Your task to perform on an android device: change the clock display to analog Image 0: 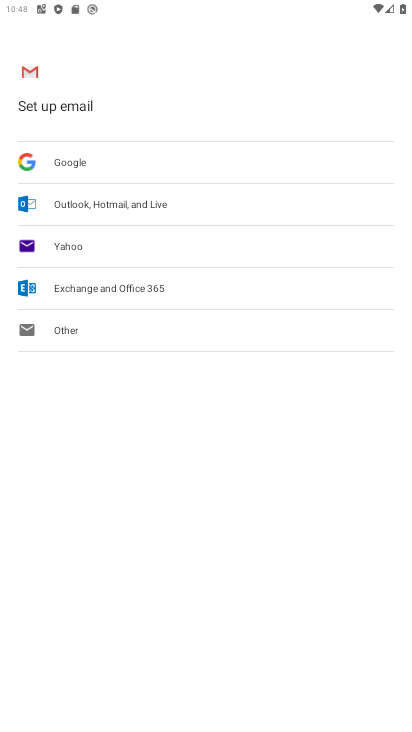
Step 0: press home button
Your task to perform on an android device: change the clock display to analog Image 1: 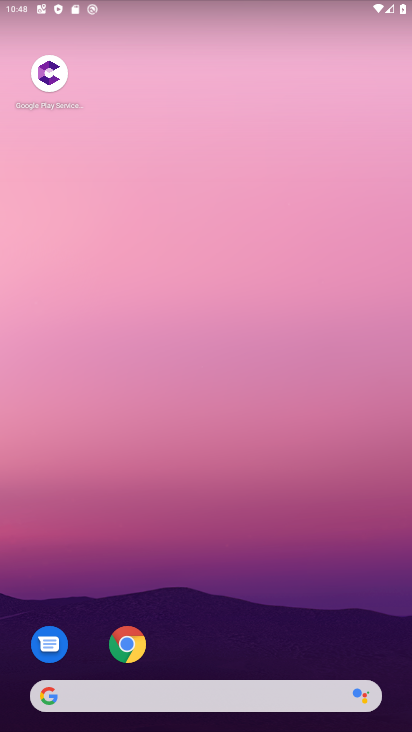
Step 1: drag from (198, 690) to (191, 105)
Your task to perform on an android device: change the clock display to analog Image 2: 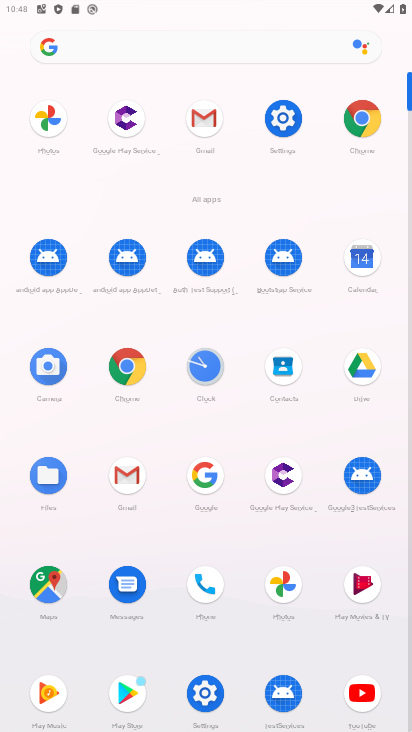
Step 2: click (206, 366)
Your task to perform on an android device: change the clock display to analog Image 3: 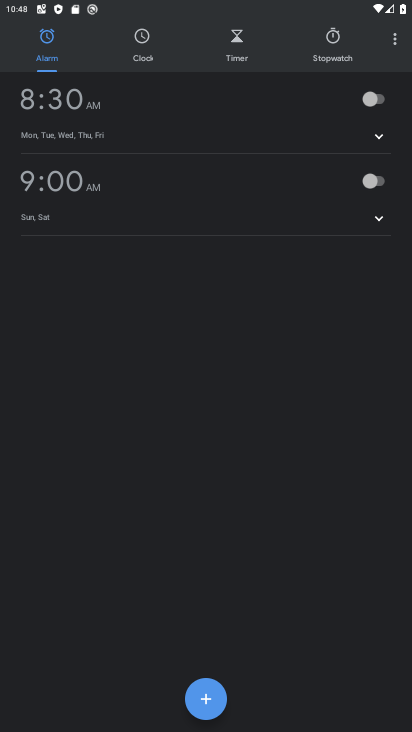
Step 3: click (396, 45)
Your task to perform on an android device: change the clock display to analog Image 4: 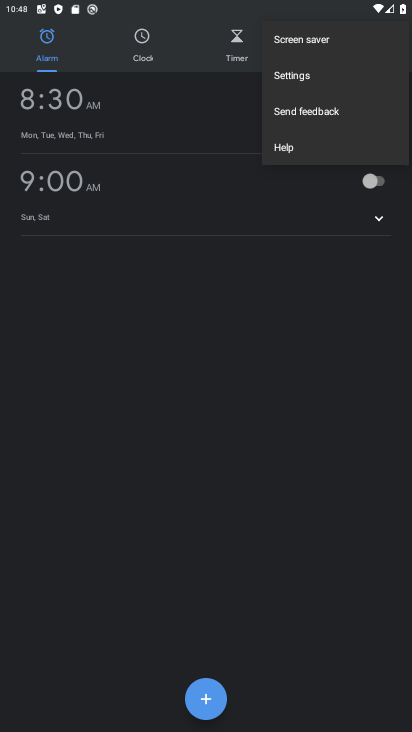
Step 4: click (316, 73)
Your task to perform on an android device: change the clock display to analog Image 5: 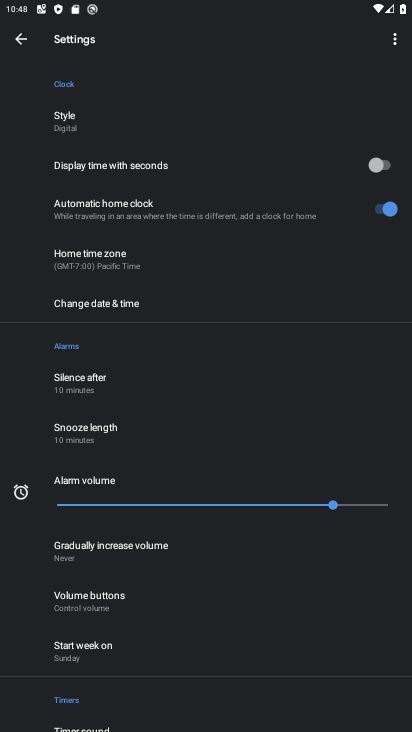
Step 5: click (135, 116)
Your task to perform on an android device: change the clock display to analog Image 6: 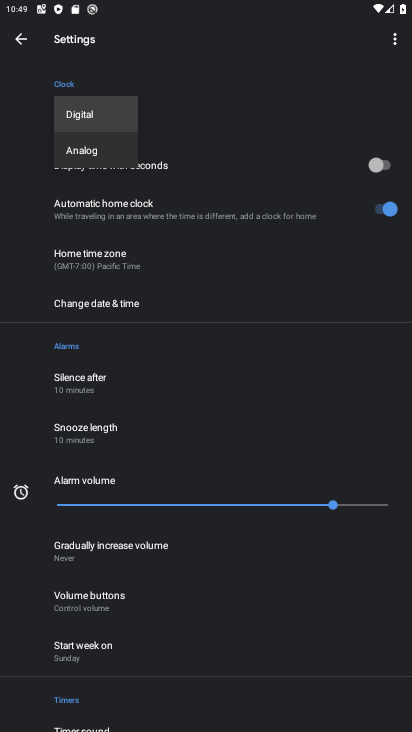
Step 6: click (108, 145)
Your task to perform on an android device: change the clock display to analog Image 7: 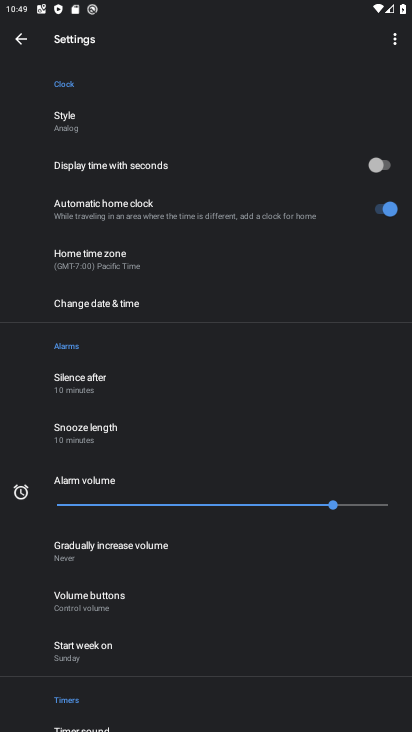
Step 7: task complete